Your task to perform on an android device: Search for sushi restaurants on Maps Image 0: 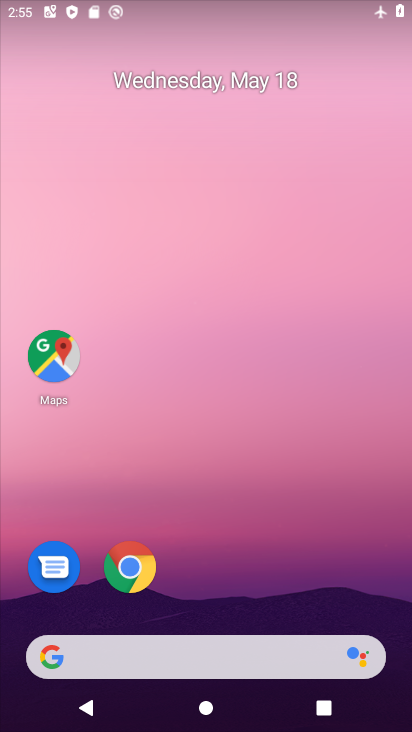
Step 0: click (39, 341)
Your task to perform on an android device: Search for sushi restaurants on Maps Image 1: 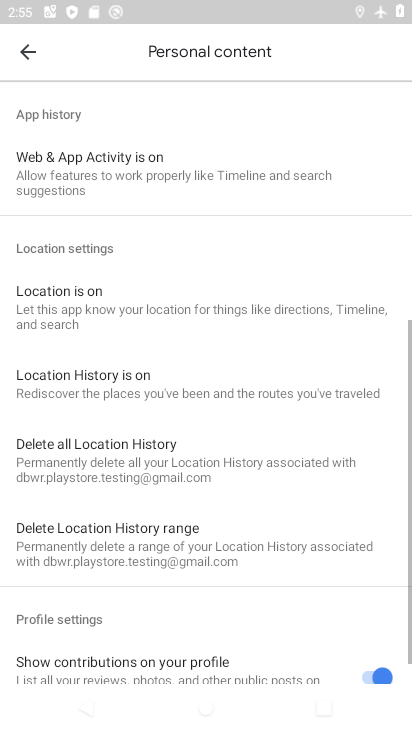
Step 1: click (12, 50)
Your task to perform on an android device: Search for sushi restaurants on Maps Image 2: 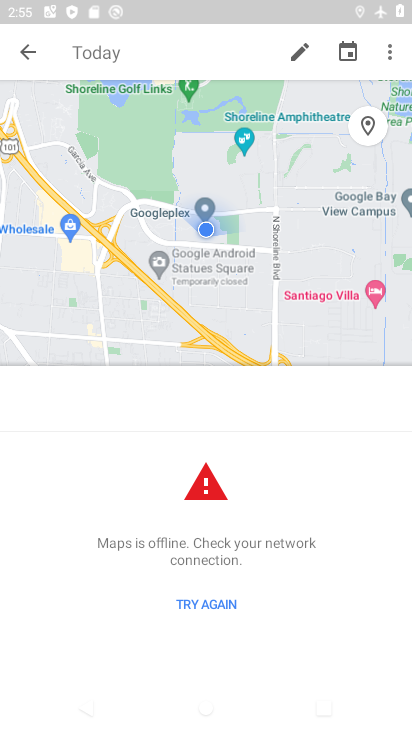
Step 2: click (25, 40)
Your task to perform on an android device: Search for sushi restaurants on Maps Image 3: 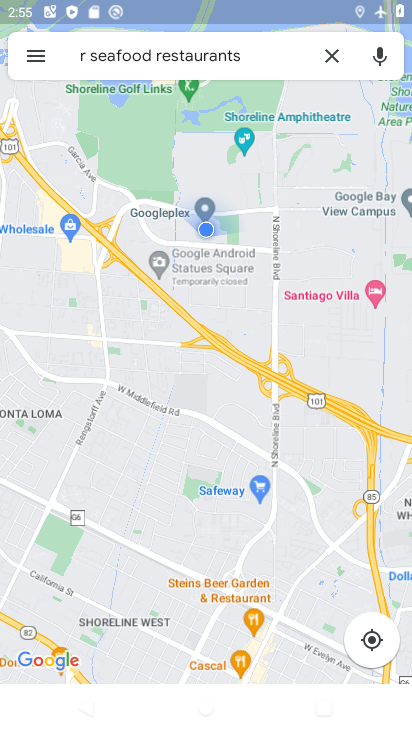
Step 3: click (316, 59)
Your task to perform on an android device: Search for sushi restaurants on Maps Image 4: 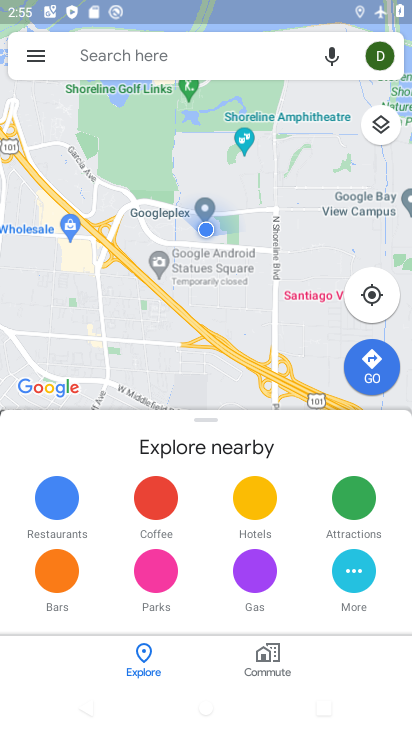
Step 4: click (190, 46)
Your task to perform on an android device: Search for sushi restaurants on Maps Image 5: 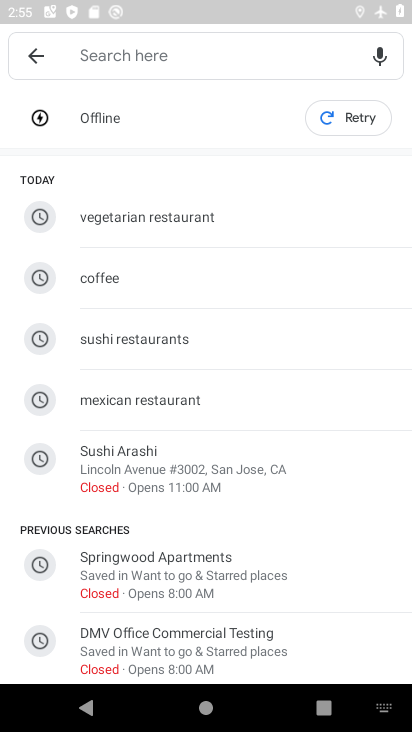
Step 5: type "sushi restaurants "
Your task to perform on an android device: Search for sushi restaurants on Maps Image 6: 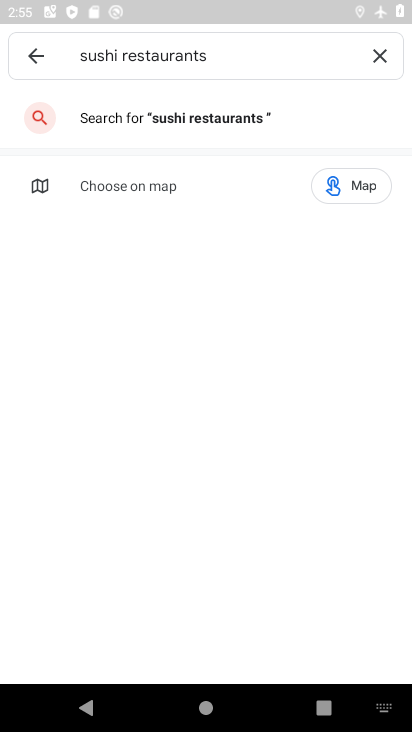
Step 6: click (214, 129)
Your task to perform on an android device: Search for sushi restaurants on Maps Image 7: 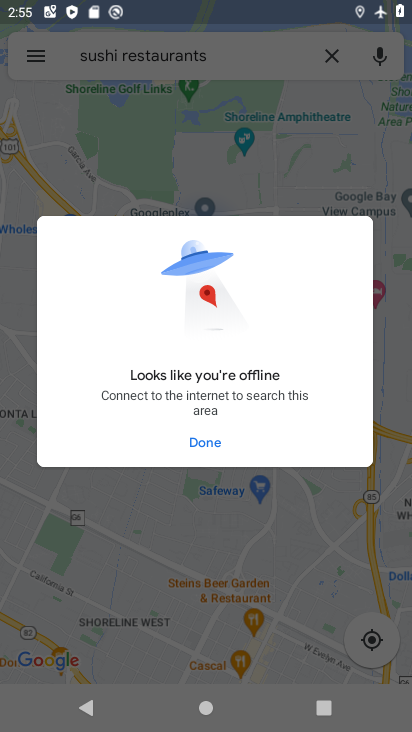
Step 7: task complete